Your task to perform on an android device: Go to sound settings Image 0: 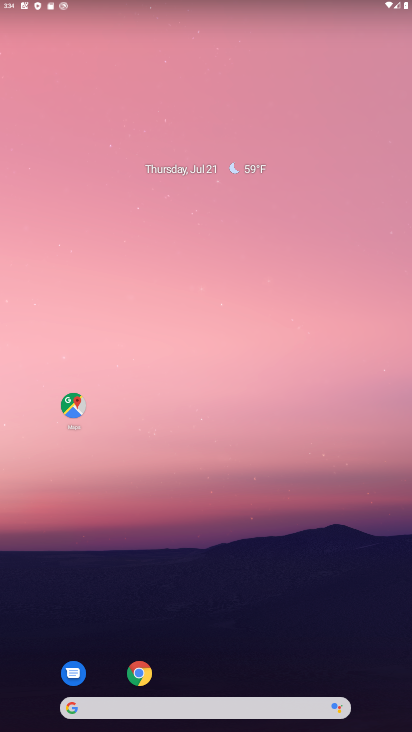
Step 0: drag from (377, 679) to (337, 170)
Your task to perform on an android device: Go to sound settings Image 1: 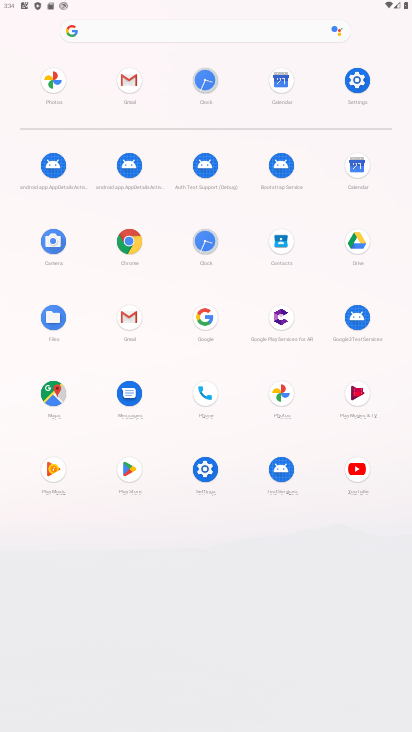
Step 1: click (205, 468)
Your task to perform on an android device: Go to sound settings Image 2: 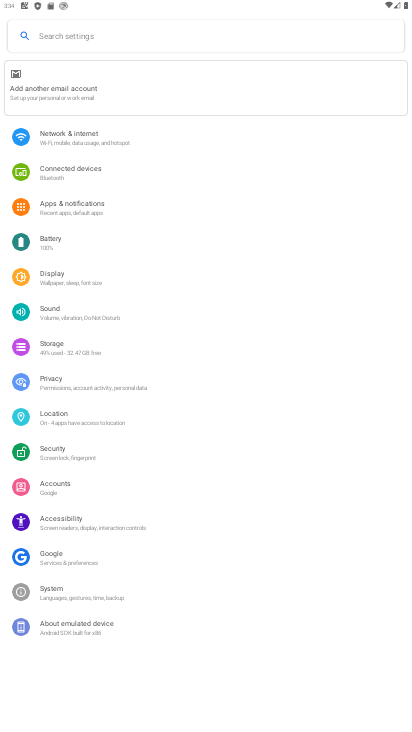
Step 2: click (47, 310)
Your task to perform on an android device: Go to sound settings Image 3: 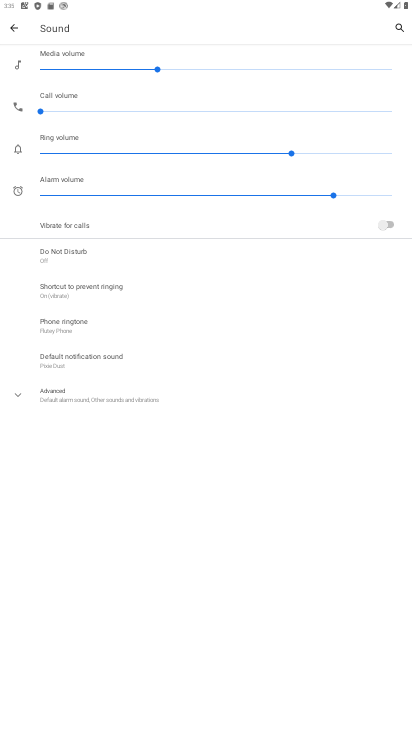
Step 3: click (16, 392)
Your task to perform on an android device: Go to sound settings Image 4: 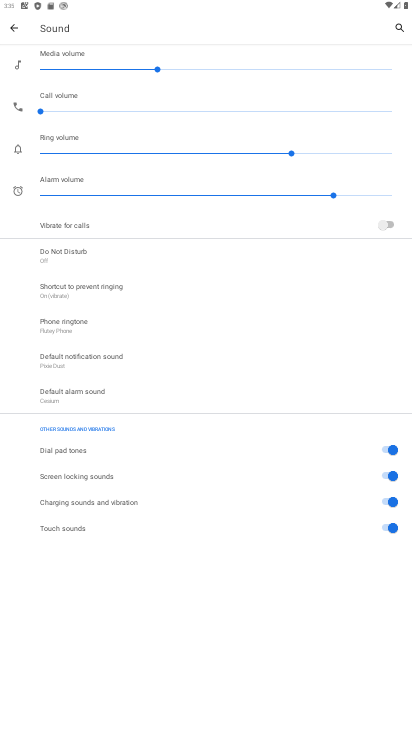
Step 4: task complete